Your task to perform on an android device: Go to Wikipedia Image 0: 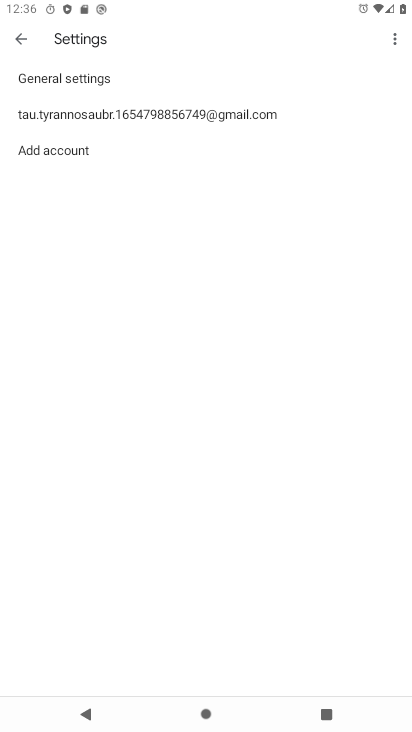
Step 0: press home button
Your task to perform on an android device: Go to Wikipedia Image 1: 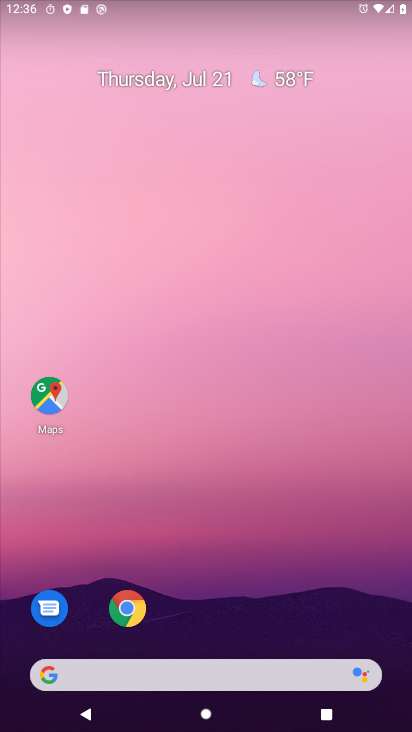
Step 1: click (128, 603)
Your task to perform on an android device: Go to Wikipedia Image 2: 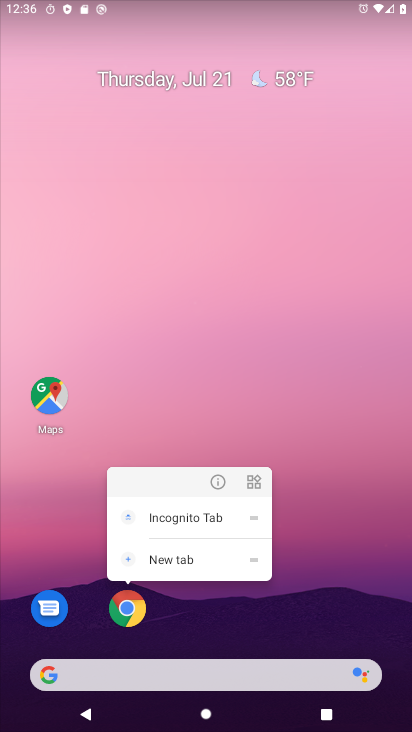
Step 2: click (128, 603)
Your task to perform on an android device: Go to Wikipedia Image 3: 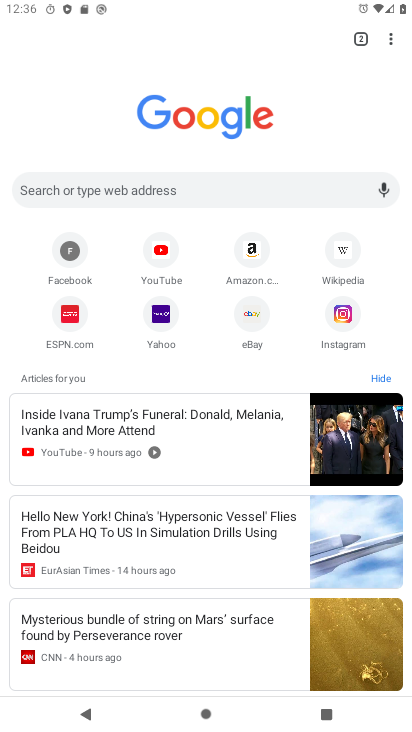
Step 3: click (344, 244)
Your task to perform on an android device: Go to Wikipedia Image 4: 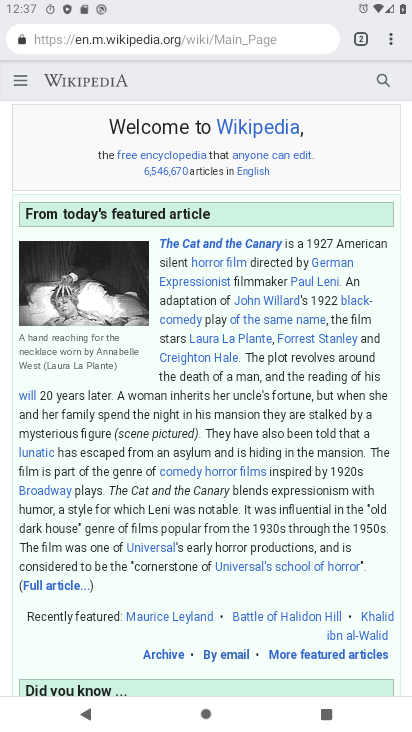
Step 4: task complete